Your task to perform on an android device: turn pop-ups on in chrome Image 0: 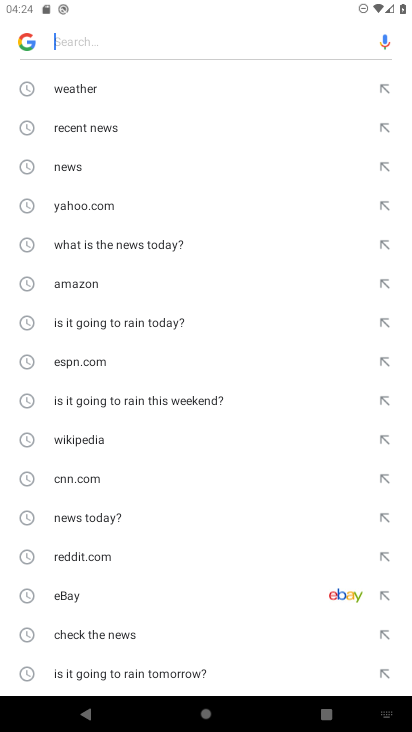
Step 0: press home button
Your task to perform on an android device: turn pop-ups on in chrome Image 1: 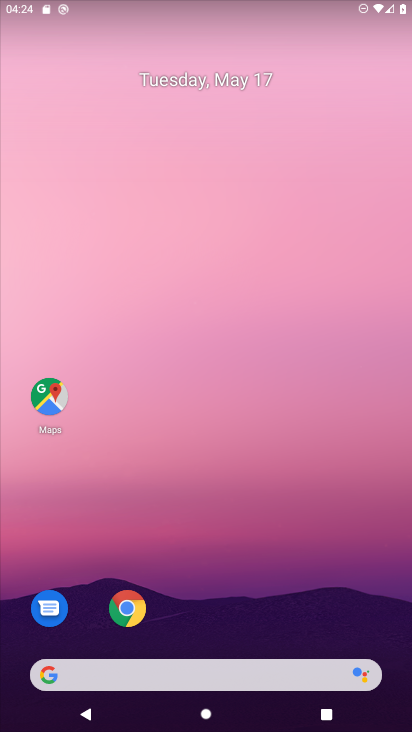
Step 1: click (119, 609)
Your task to perform on an android device: turn pop-ups on in chrome Image 2: 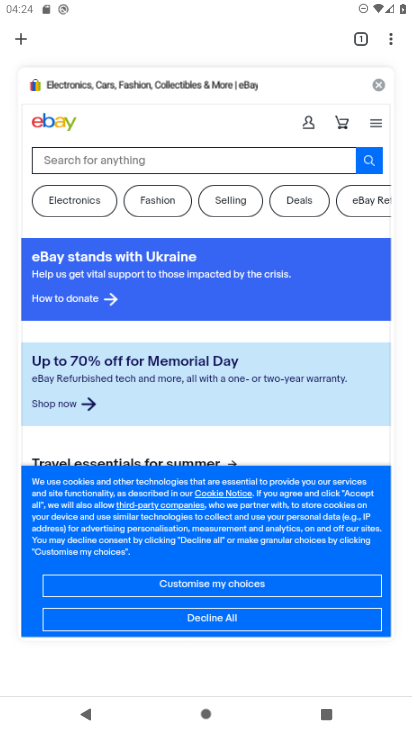
Step 2: click (390, 36)
Your task to perform on an android device: turn pop-ups on in chrome Image 3: 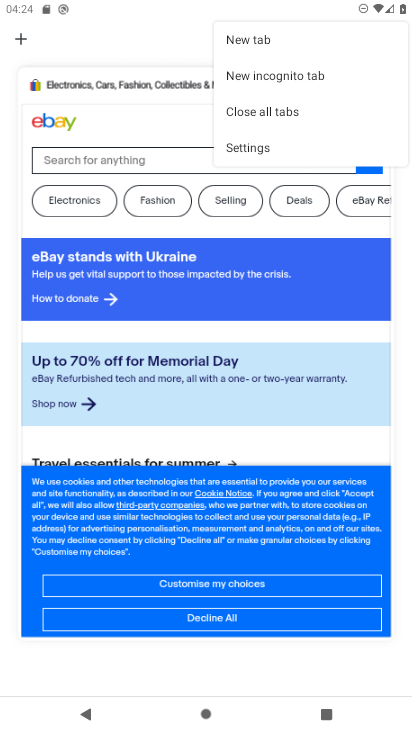
Step 3: click (268, 140)
Your task to perform on an android device: turn pop-ups on in chrome Image 4: 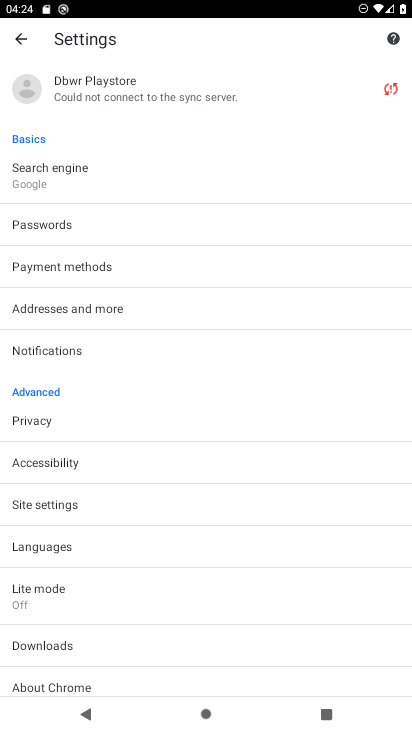
Step 4: click (66, 499)
Your task to perform on an android device: turn pop-ups on in chrome Image 5: 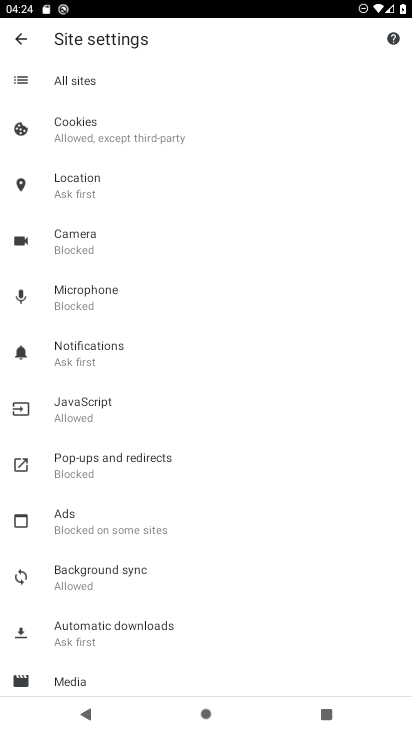
Step 5: click (76, 467)
Your task to perform on an android device: turn pop-ups on in chrome Image 6: 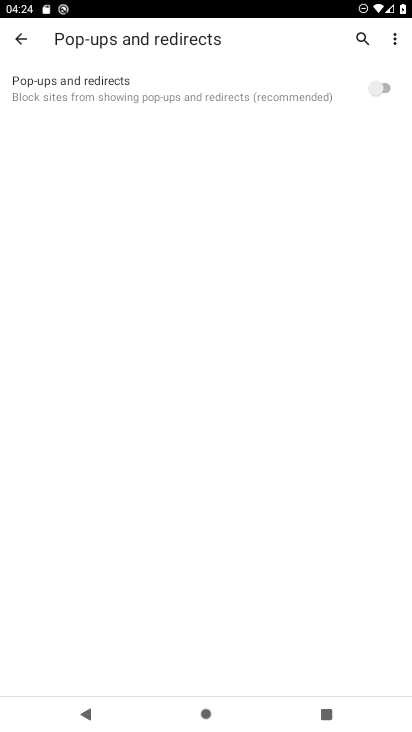
Step 6: click (388, 84)
Your task to perform on an android device: turn pop-ups on in chrome Image 7: 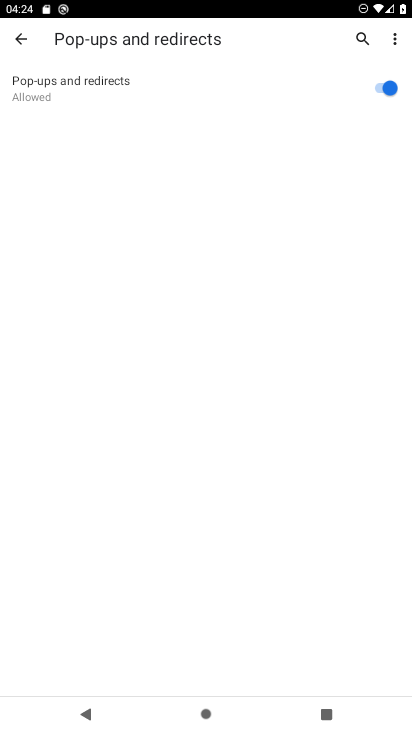
Step 7: task complete